Your task to perform on an android device: Open Chrome and go to the settings page Image 0: 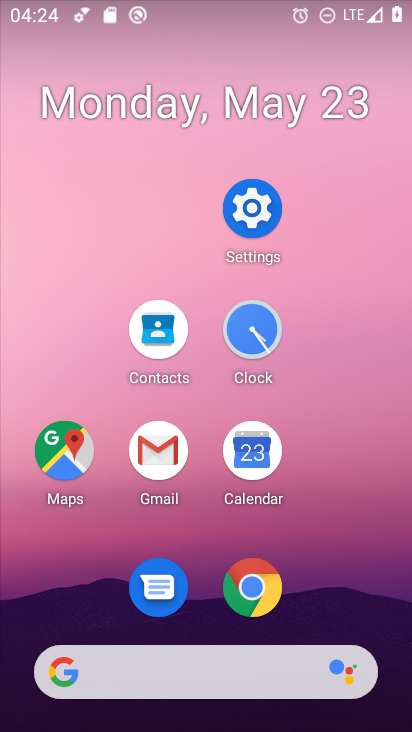
Step 0: click (253, 561)
Your task to perform on an android device: Open Chrome and go to the settings page Image 1: 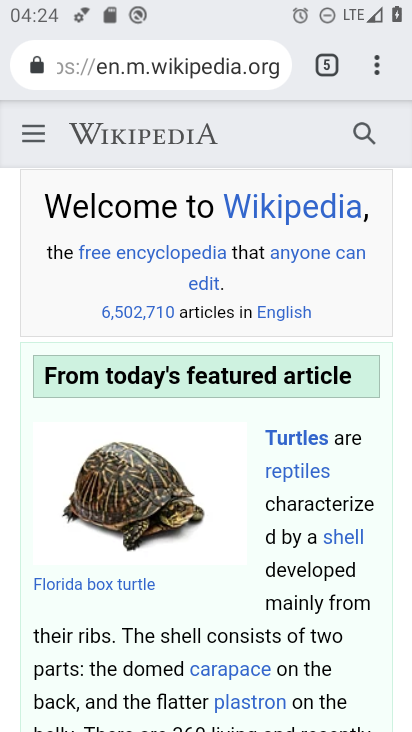
Step 1: click (377, 68)
Your task to perform on an android device: Open Chrome and go to the settings page Image 2: 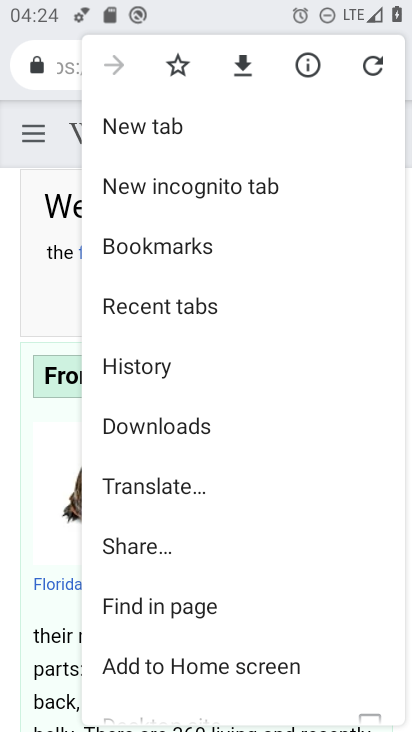
Step 2: drag from (187, 646) to (214, 335)
Your task to perform on an android device: Open Chrome and go to the settings page Image 3: 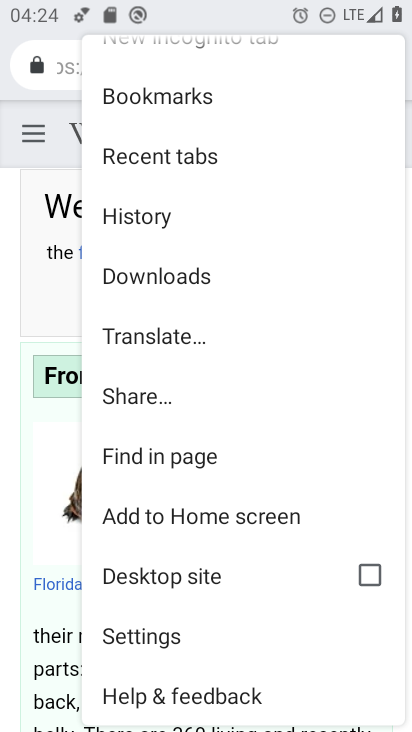
Step 3: click (163, 637)
Your task to perform on an android device: Open Chrome and go to the settings page Image 4: 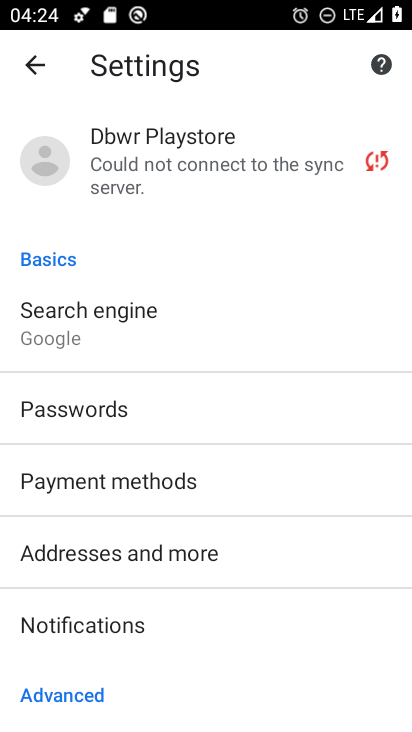
Step 4: task complete